Your task to perform on an android device: change the clock display to show seconds Image 0: 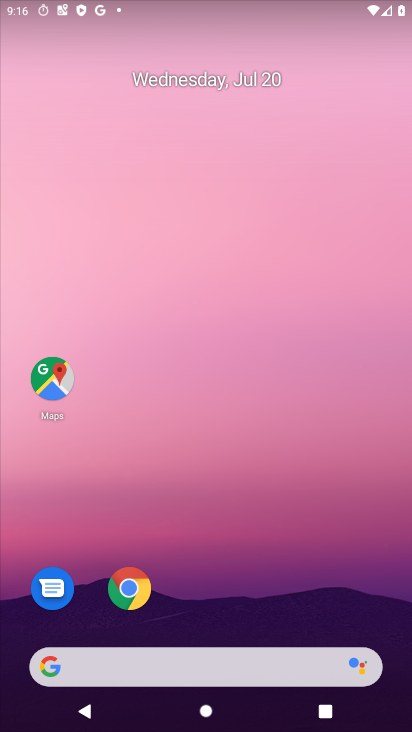
Step 0: drag from (335, 657) to (285, 141)
Your task to perform on an android device: change the clock display to show seconds Image 1: 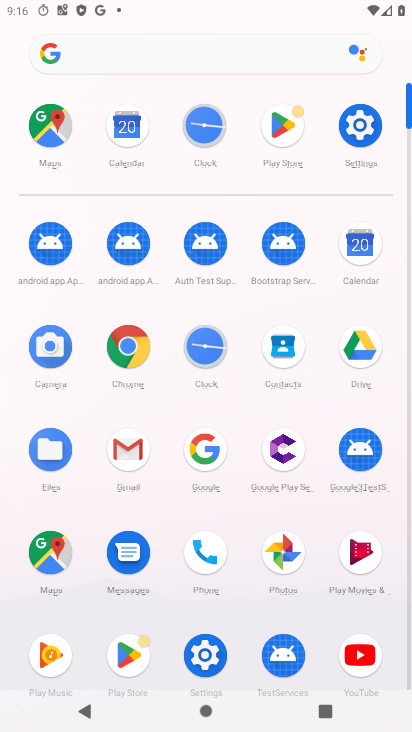
Step 1: click (219, 350)
Your task to perform on an android device: change the clock display to show seconds Image 2: 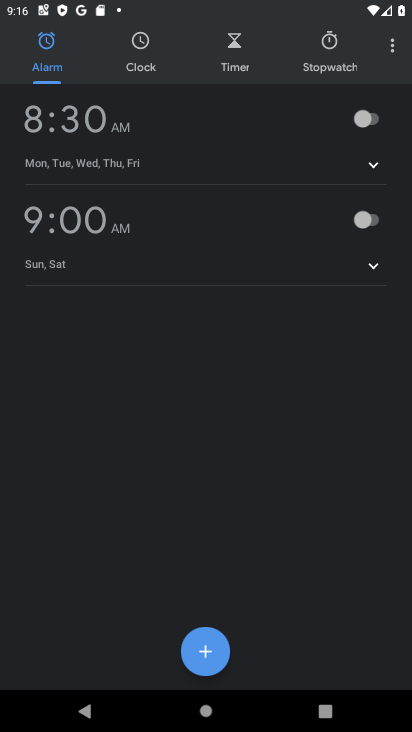
Step 2: click (378, 45)
Your task to perform on an android device: change the clock display to show seconds Image 3: 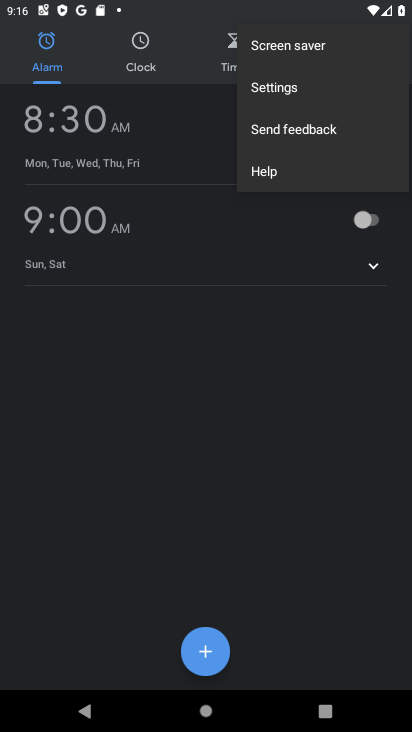
Step 3: click (308, 80)
Your task to perform on an android device: change the clock display to show seconds Image 4: 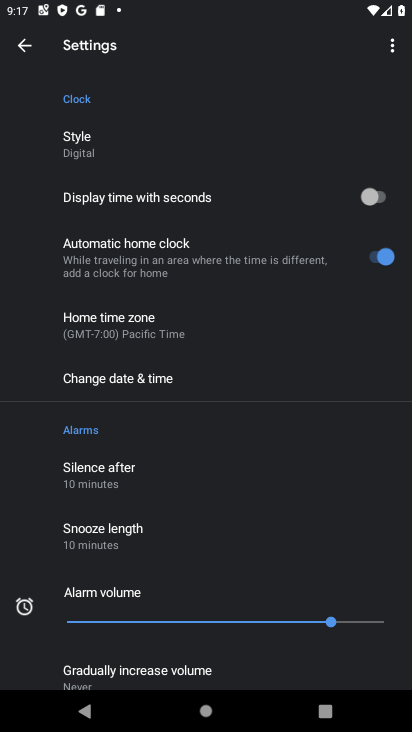
Step 4: task complete